Your task to perform on an android device: toggle javascript in the chrome app Image 0: 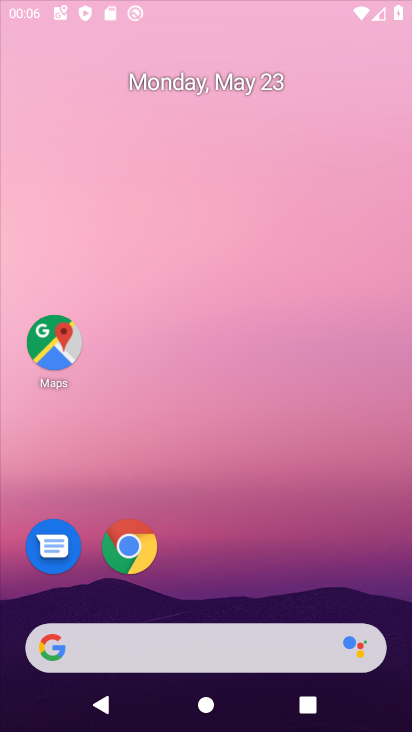
Step 0: drag from (313, 320) to (366, 136)
Your task to perform on an android device: toggle javascript in the chrome app Image 1: 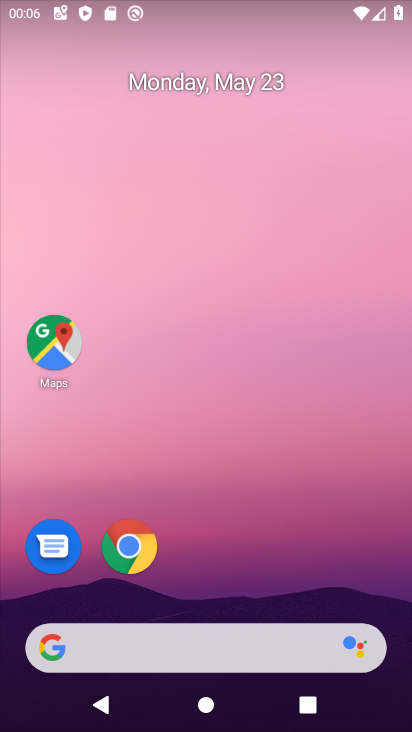
Step 1: drag from (143, 630) to (253, 4)
Your task to perform on an android device: toggle javascript in the chrome app Image 2: 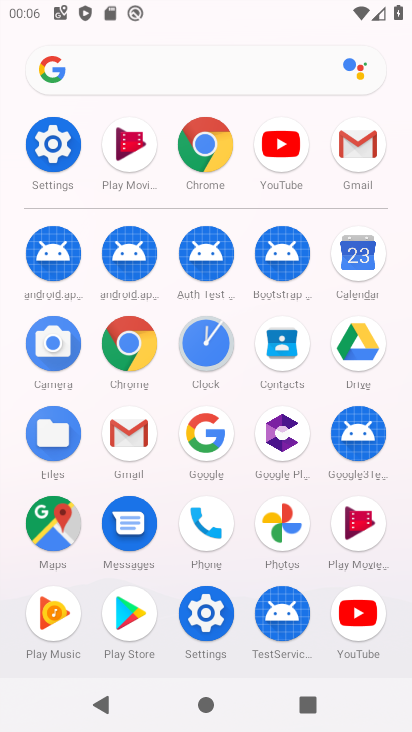
Step 2: click (202, 607)
Your task to perform on an android device: toggle javascript in the chrome app Image 3: 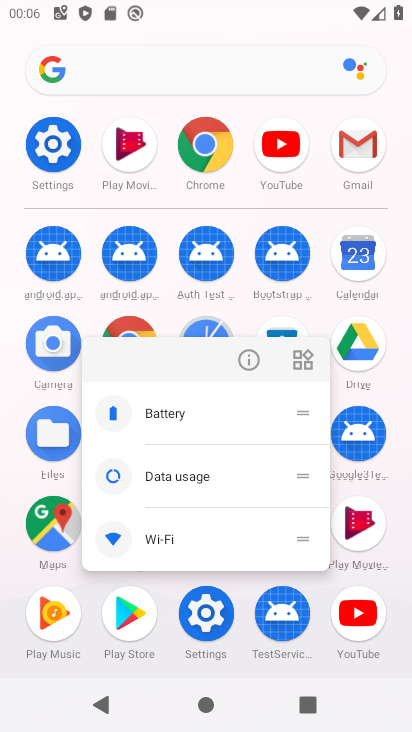
Step 3: click (251, 353)
Your task to perform on an android device: toggle javascript in the chrome app Image 4: 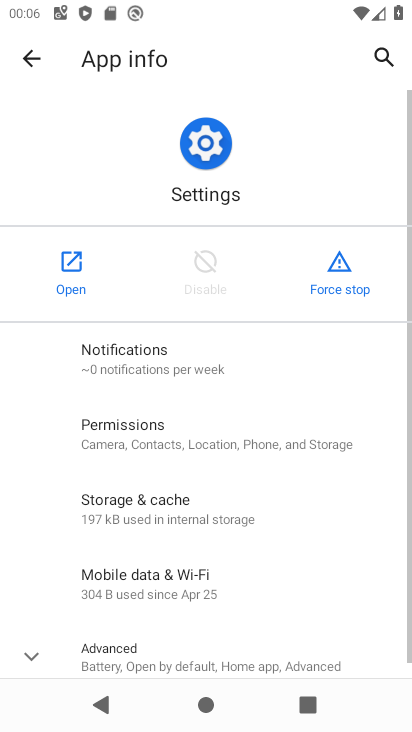
Step 4: click (44, 253)
Your task to perform on an android device: toggle javascript in the chrome app Image 5: 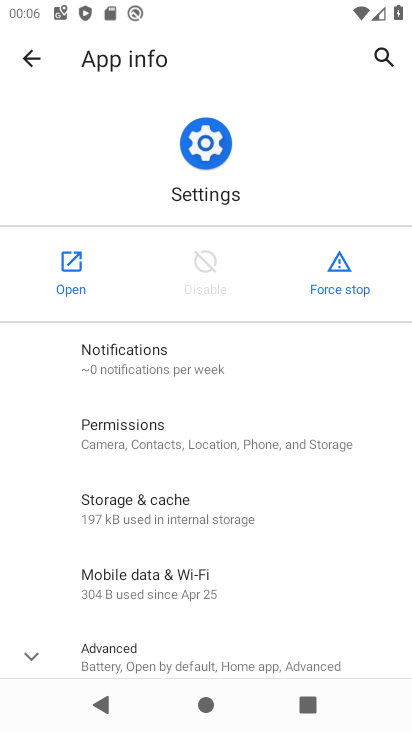
Step 5: click (44, 252)
Your task to perform on an android device: toggle javascript in the chrome app Image 6: 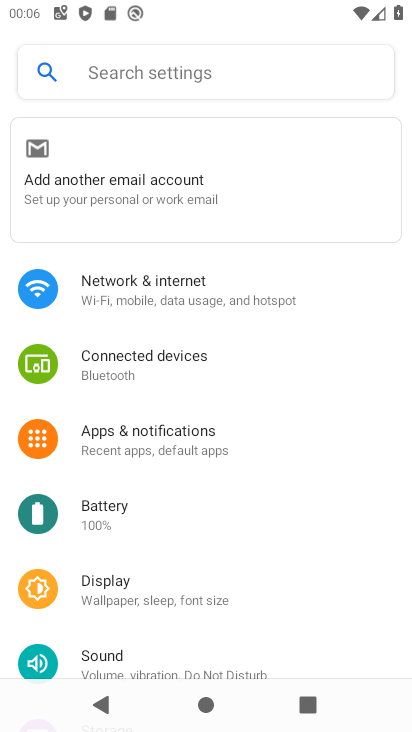
Step 6: press home button
Your task to perform on an android device: toggle javascript in the chrome app Image 7: 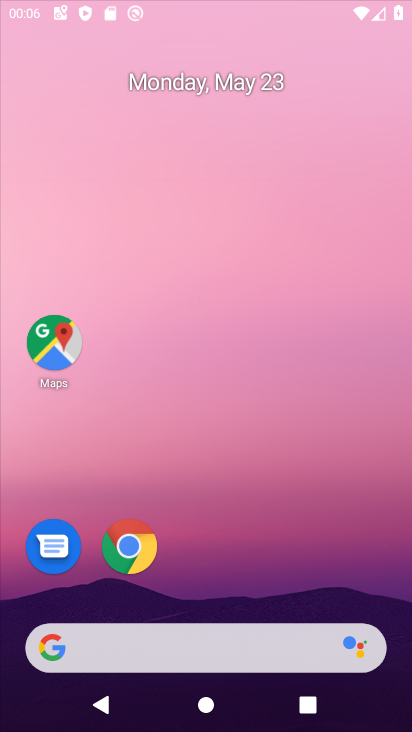
Step 7: drag from (252, 565) to (304, 9)
Your task to perform on an android device: toggle javascript in the chrome app Image 8: 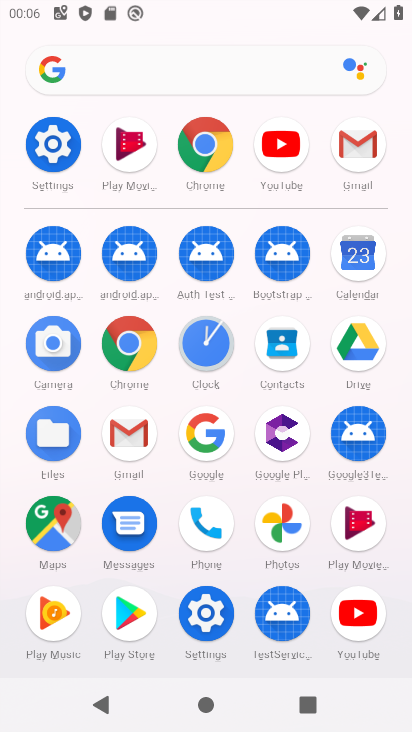
Step 8: click (201, 143)
Your task to perform on an android device: toggle javascript in the chrome app Image 9: 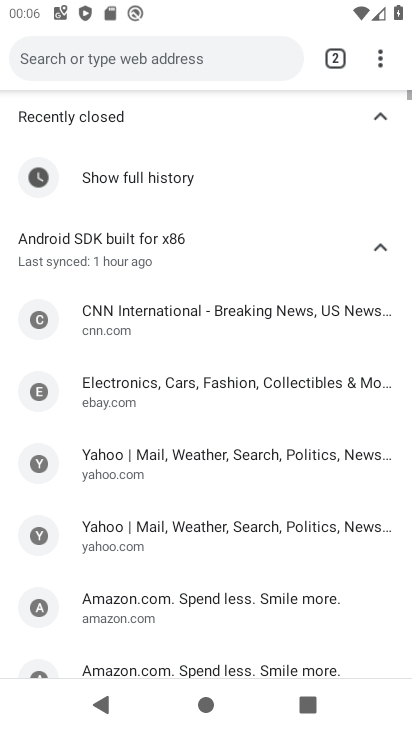
Step 9: drag from (241, 530) to (285, 133)
Your task to perform on an android device: toggle javascript in the chrome app Image 10: 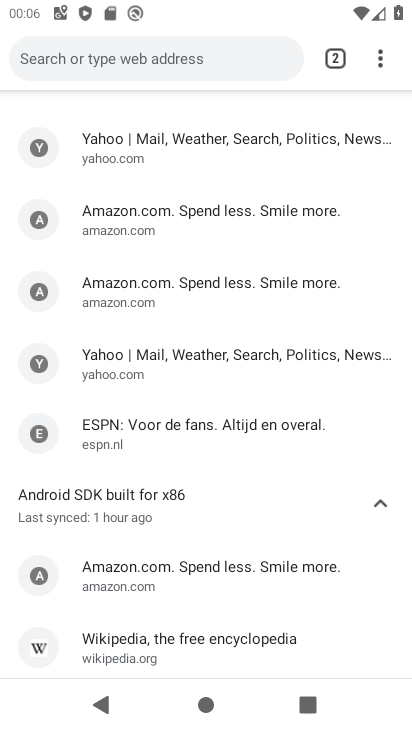
Step 10: click (375, 65)
Your task to perform on an android device: toggle javascript in the chrome app Image 11: 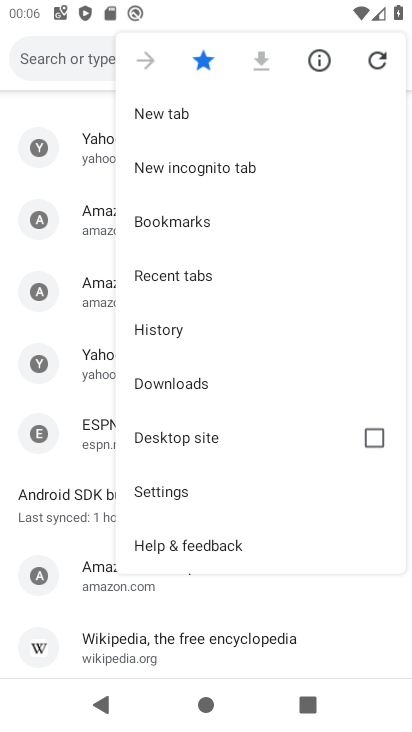
Step 11: click (182, 491)
Your task to perform on an android device: toggle javascript in the chrome app Image 12: 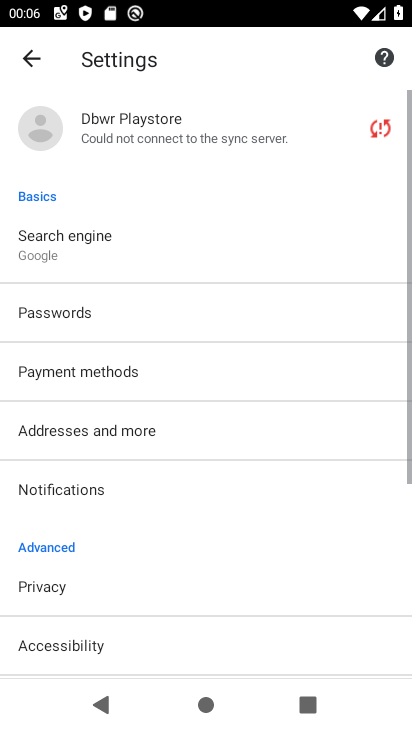
Step 12: drag from (182, 488) to (263, 63)
Your task to perform on an android device: toggle javascript in the chrome app Image 13: 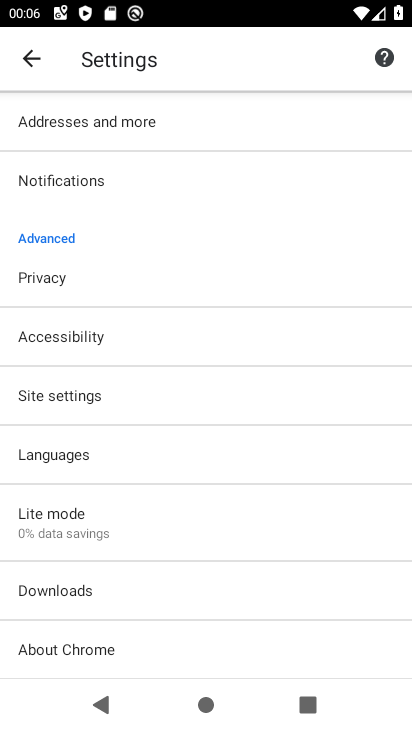
Step 13: click (149, 405)
Your task to perform on an android device: toggle javascript in the chrome app Image 14: 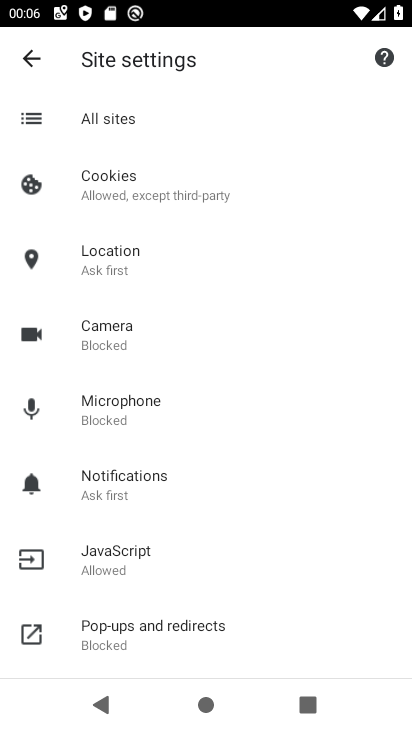
Step 14: click (149, 564)
Your task to perform on an android device: toggle javascript in the chrome app Image 15: 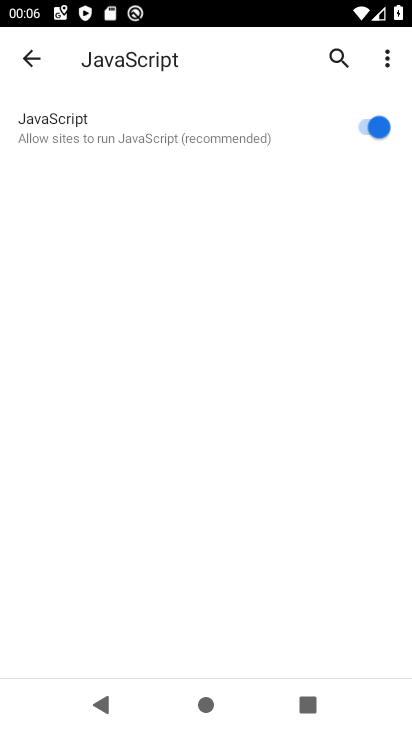
Step 15: drag from (231, 439) to (251, 227)
Your task to perform on an android device: toggle javascript in the chrome app Image 16: 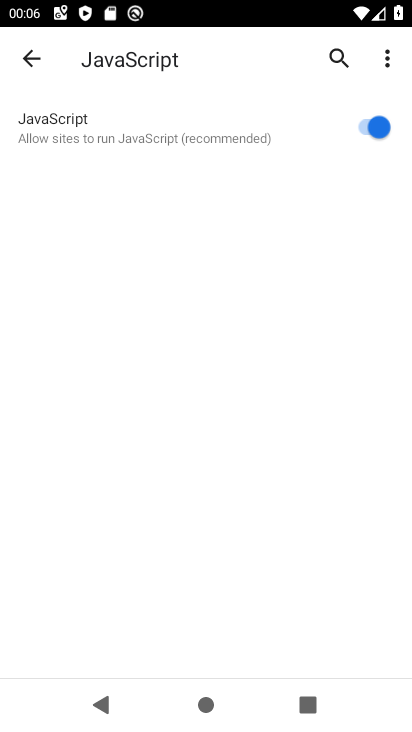
Step 16: click (368, 128)
Your task to perform on an android device: toggle javascript in the chrome app Image 17: 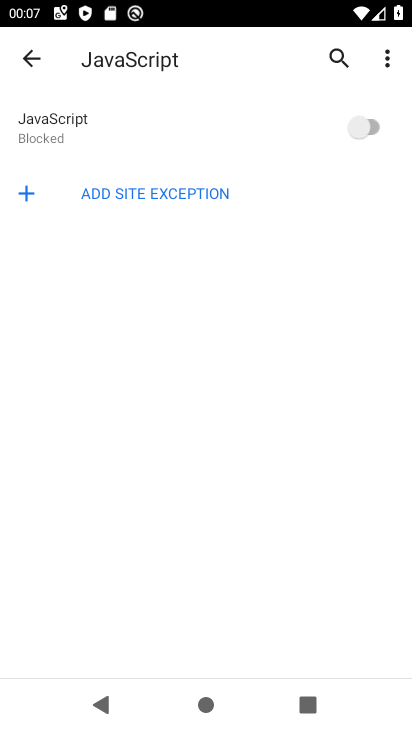
Step 17: task complete